Your task to perform on an android device: Do I have any events tomorrow? Image 0: 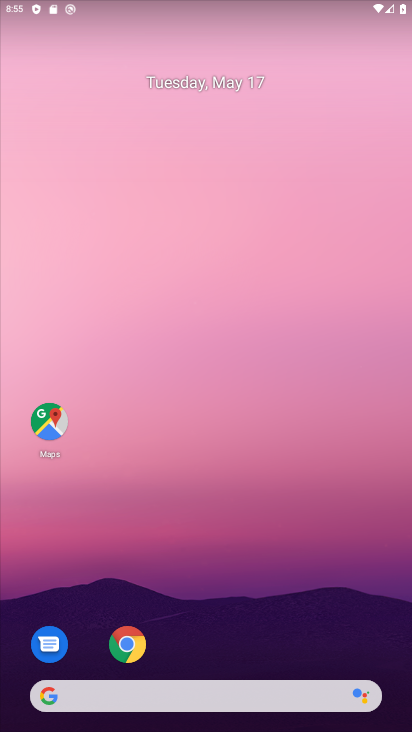
Step 0: drag from (205, 660) to (247, 0)
Your task to perform on an android device: Do I have any events tomorrow? Image 1: 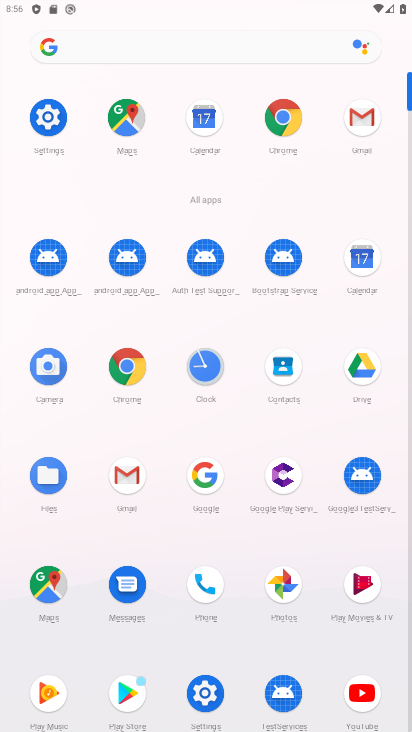
Step 1: click (361, 253)
Your task to perform on an android device: Do I have any events tomorrow? Image 2: 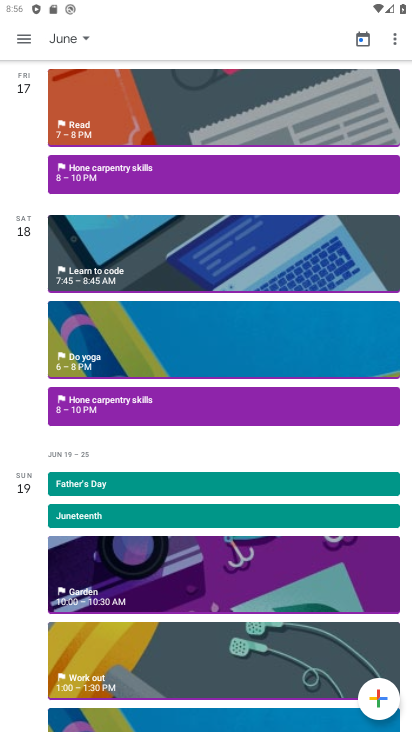
Step 2: drag from (31, 450) to (44, 174)
Your task to perform on an android device: Do I have any events tomorrow? Image 3: 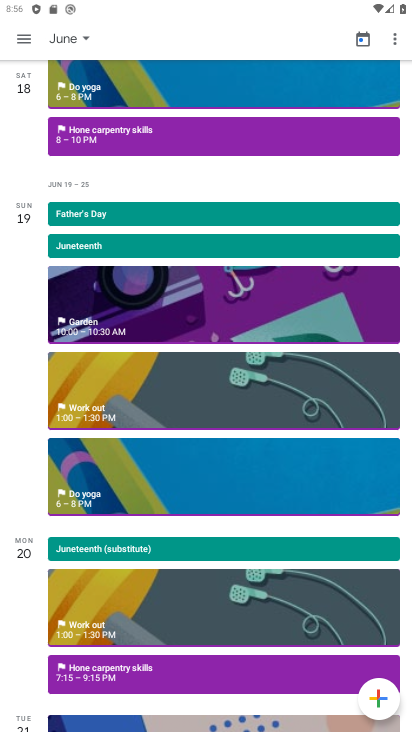
Step 3: drag from (32, 639) to (61, 77)
Your task to perform on an android device: Do I have any events tomorrow? Image 4: 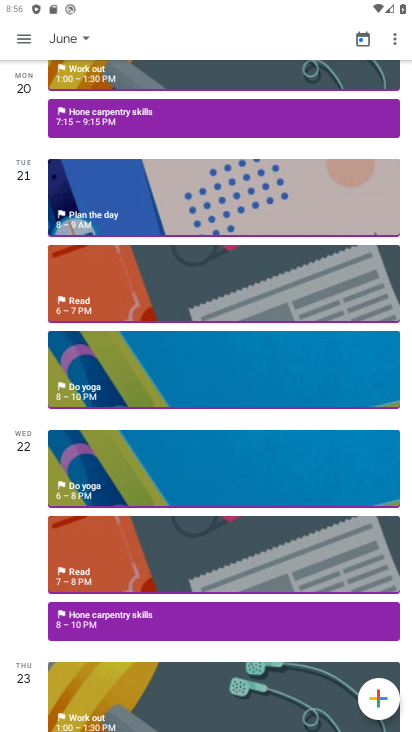
Step 4: drag from (22, 118) to (39, 709)
Your task to perform on an android device: Do I have any events tomorrow? Image 5: 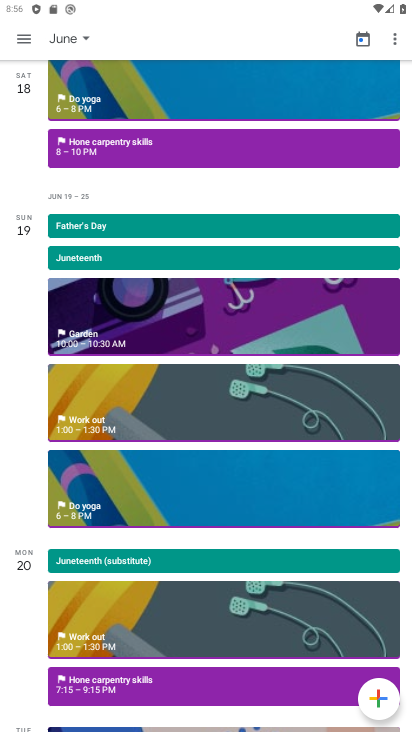
Step 5: click (80, 34)
Your task to perform on an android device: Do I have any events tomorrow? Image 6: 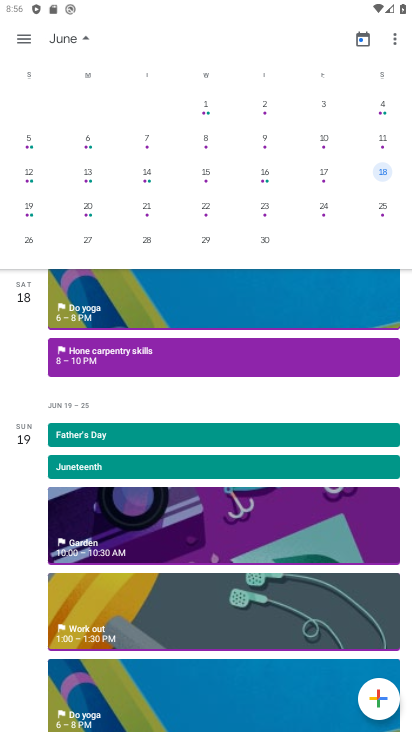
Step 6: drag from (44, 180) to (363, 207)
Your task to perform on an android device: Do I have any events tomorrow? Image 7: 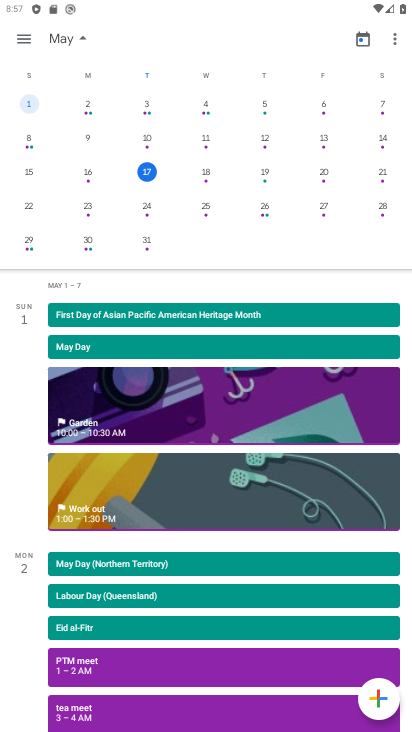
Step 7: click (206, 172)
Your task to perform on an android device: Do I have any events tomorrow? Image 8: 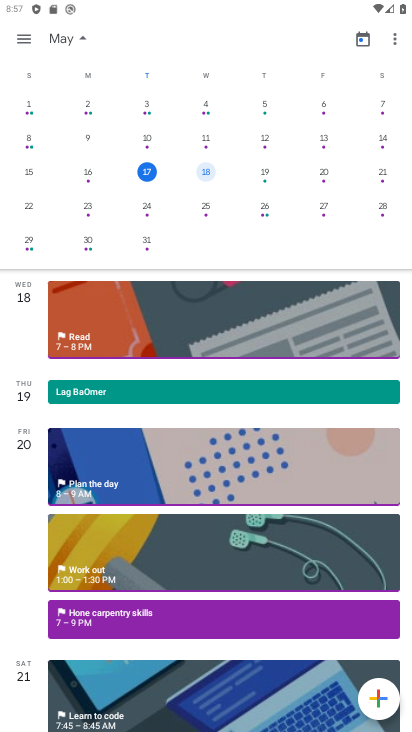
Step 8: click (23, 312)
Your task to perform on an android device: Do I have any events tomorrow? Image 9: 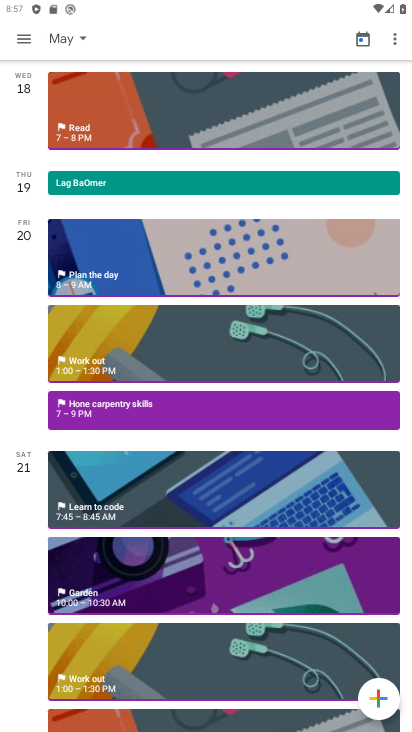
Step 9: click (28, 109)
Your task to perform on an android device: Do I have any events tomorrow? Image 10: 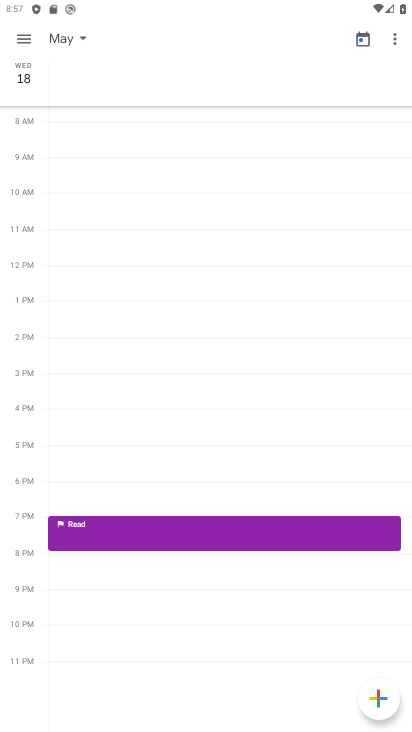
Step 10: task complete